Your task to perform on an android device: make emails show in primary in the gmail app Image 0: 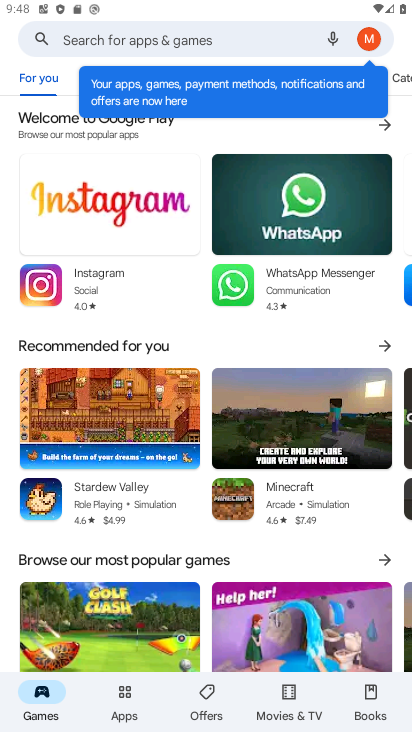
Step 0: press home button
Your task to perform on an android device: make emails show in primary in the gmail app Image 1: 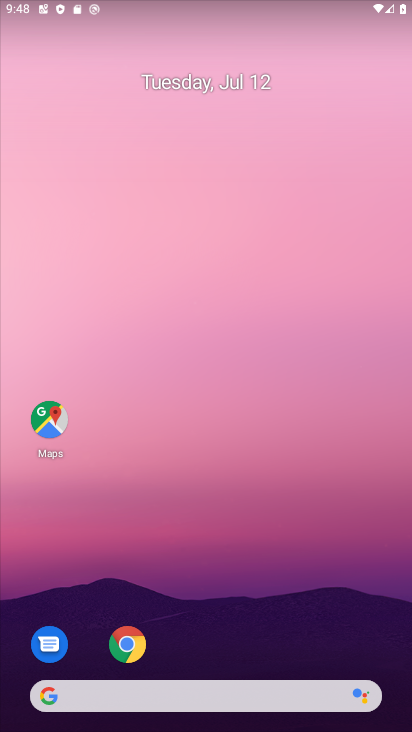
Step 1: drag from (218, 454) to (294, 68)
Your task to perform on an android device: make emails show in primary in the gmail app Image 2: 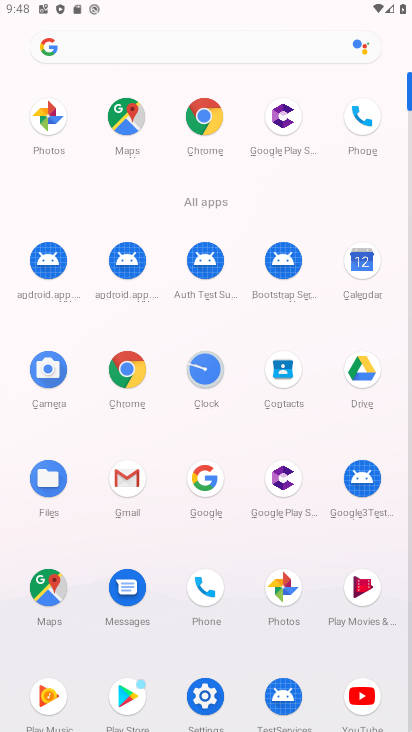
Step 2: click (130, 487)
Your task to perform on an android device: make emails show in primary in the gmail app Image 3: 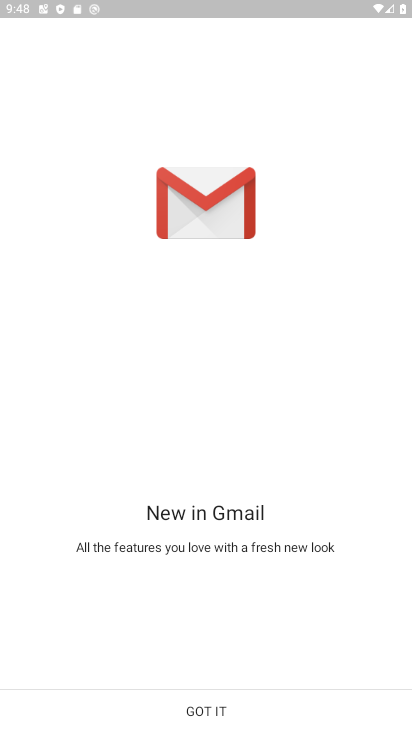
Step 3: click (220, 698)
Your task to perform on an android device: make emails show in primary in the gmail app Image 4: 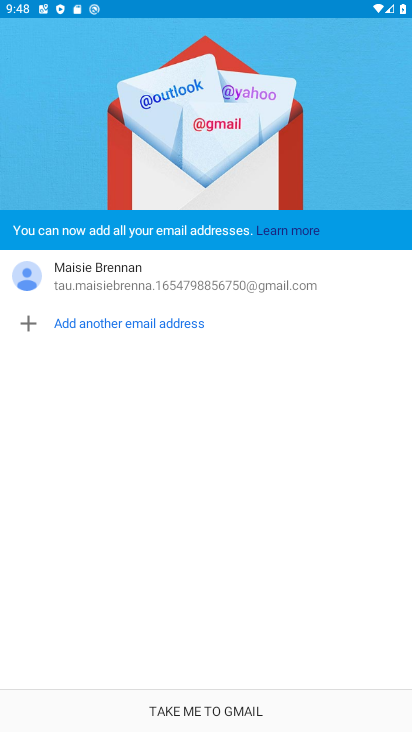
Step 4: click (206, 715)
Your task to perform on an android device: make emails show in primary in the gmail app Image 5: 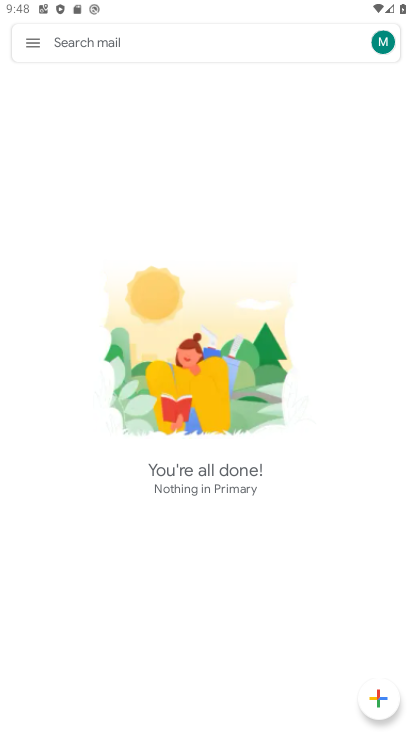
Step 5: click (35, 39)
Your task to perform on an android device: make emails show in primary in the gmail app Image 6: 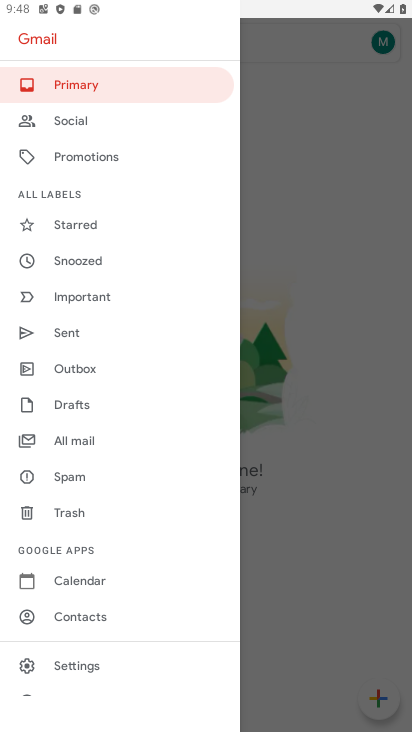
Step 6: click (120, 658)
Your task to perform on an android device: make emails show in primary in the gmail app Image 7: 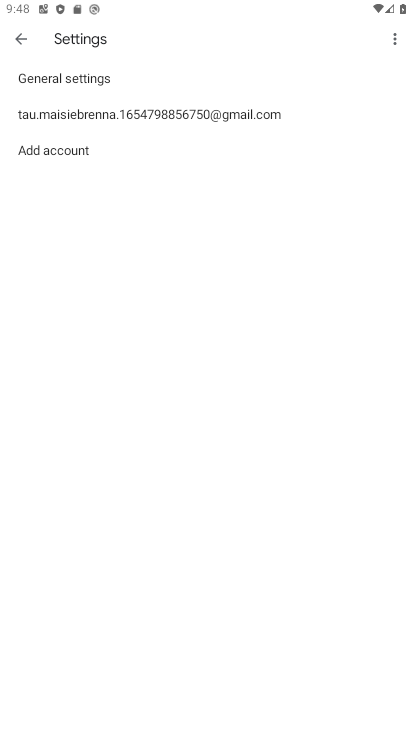
Step 7: click (179, 110)
Your task to perform on an android device: make emails show in primary in the gmail app Image 8: 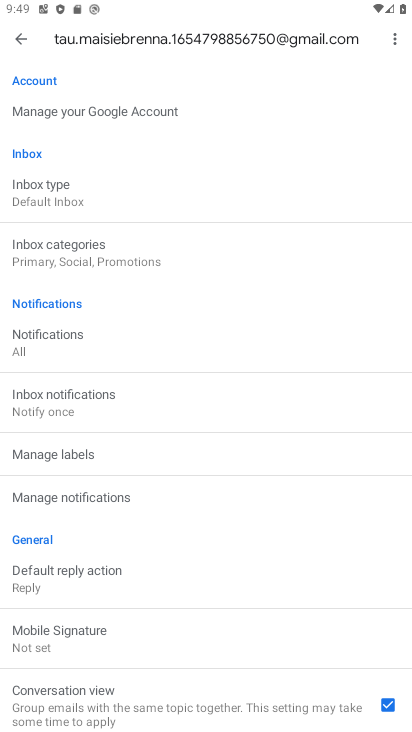
Step 8: click (67, 258)
Your task to perform on an android device: make emails show in primary in the gmail app Image 9: 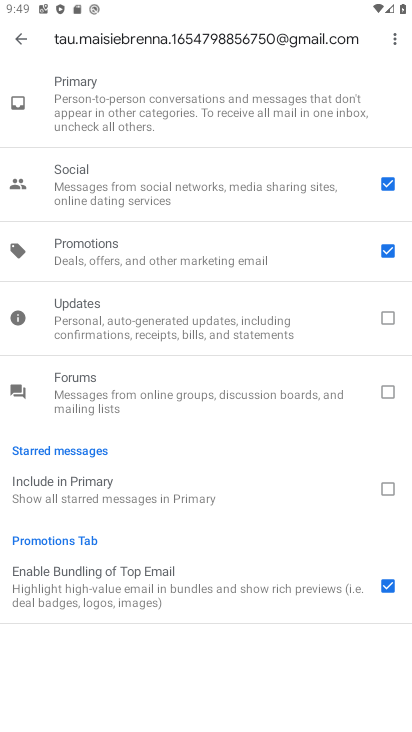
Step 9: click (378, 257)
Your task to perform on an android device: make emails show in primary in the gmail app Image 10: 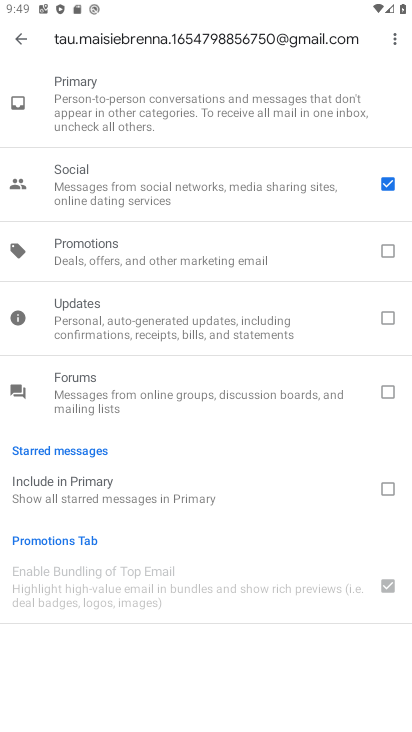
Step 10: click (393, 184)
Your task to perform on an android device: make emails show in primary in the gmail app Image 11: 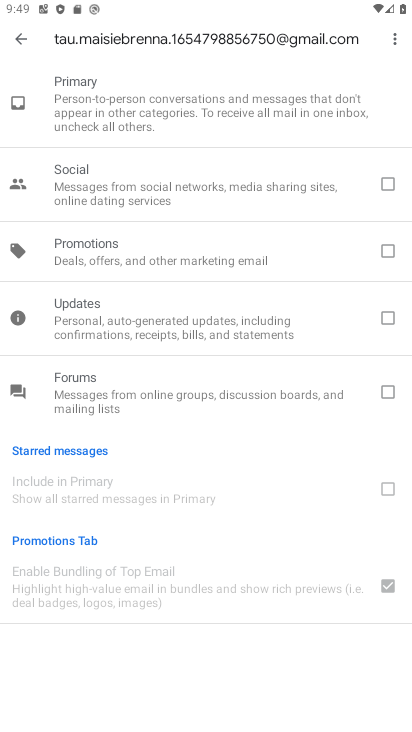
Step 11: task complete